Your task to perform on an android device: toggle translation in the chrome app Image 0: 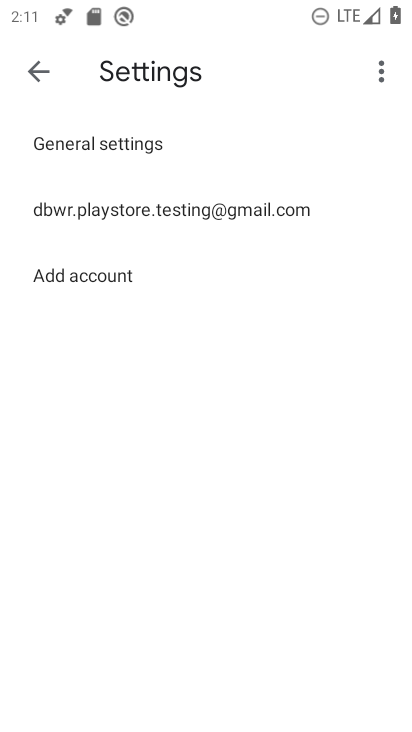
Step 0: press home button
Your task to perform on an android device: toggle translation in the chrome app Image 1: 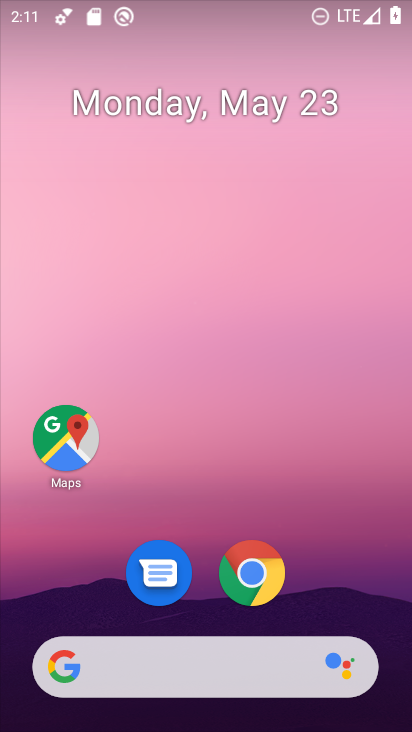
Step 1: click (259, 573)
Your task to perform on an android device: toggle translation in the chrome app Image 2: 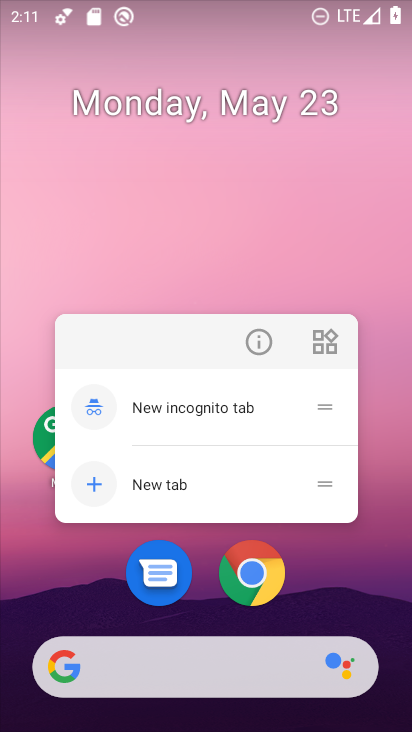
Step 2: click (252, 577)
Your task to perform on an android device: toggle translation in the chrome app Image 3: 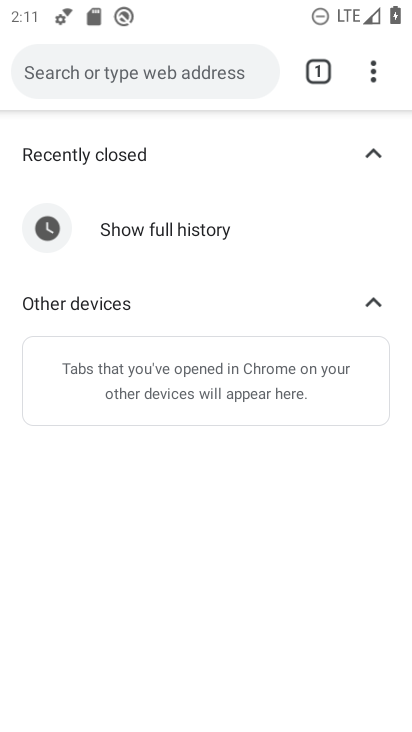
Step 3: drag from (362, 57) to (148, 604)
Your task to perform on an android device: toggle translation in the chrome app Image 4: 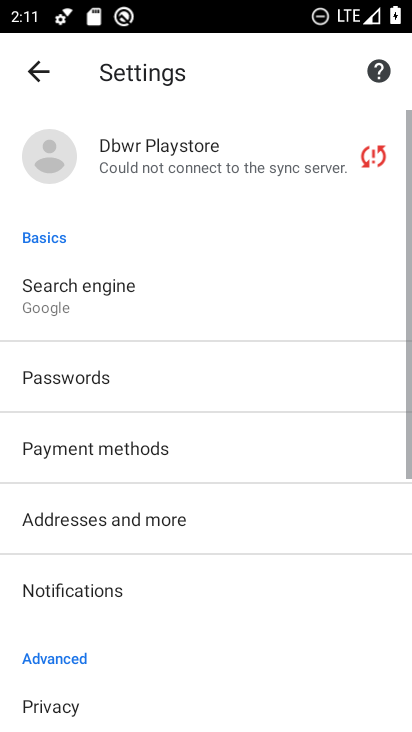
Step 4: click (137, 595)
Your task to perform on an android device: toggle translation in the chrome app Image 5: 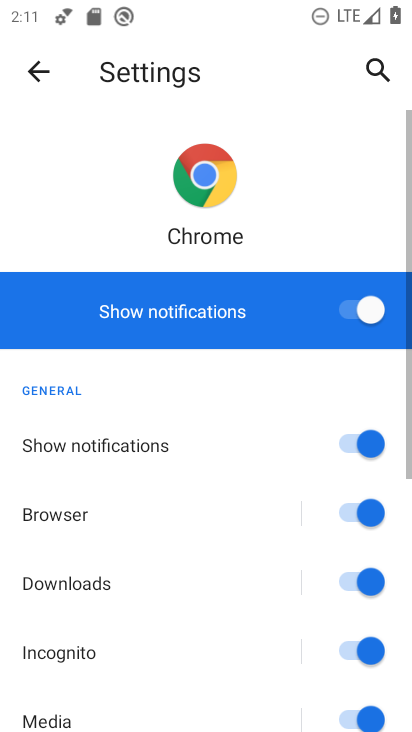
Step 5: click (24, 56)
Your task to perform on an android device: toggle translation in the chrome app Image 6: 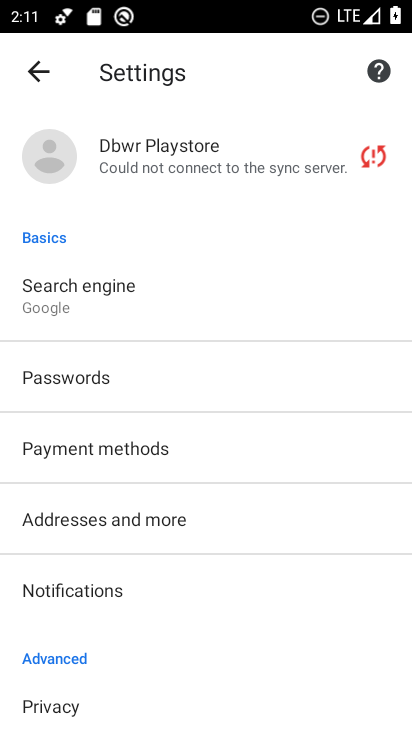
Step 6: drag from (231, 605) to (234, 112)
Your task to perform on an android device: toggle translation in the chrome app Image 7: 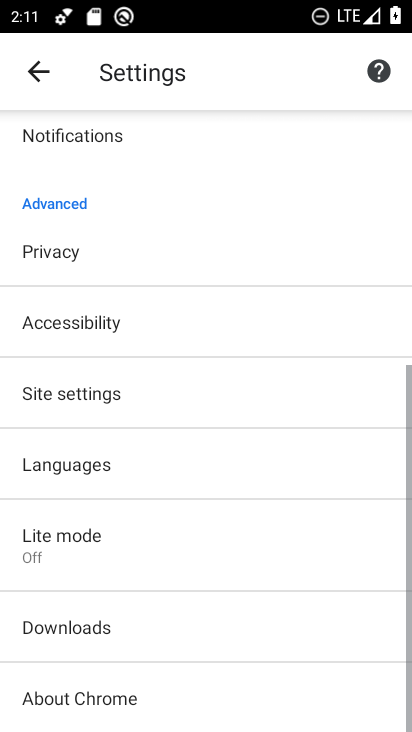
Step 7: drag from (222, 644) to (230, 160)
Your task to perform on an android device: toggle translation in the chrome app Image 8: 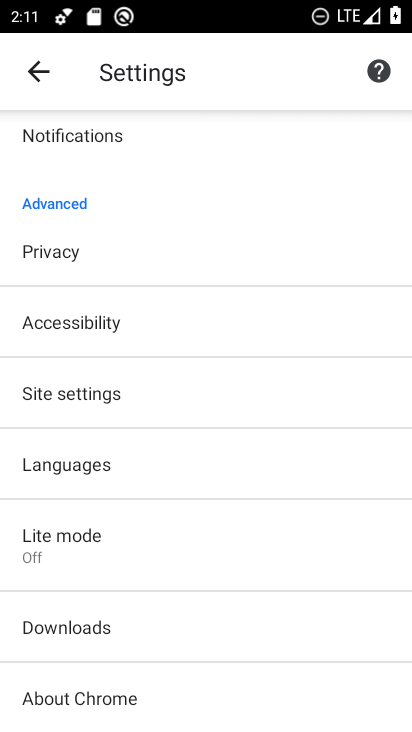
Step 8: click (135, 463)
Your task to perform on an android device: toggle translation in the chrome app Image 9: 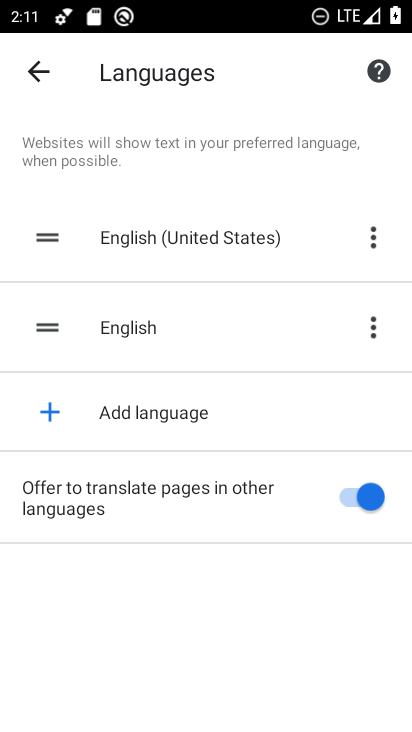
Step 9: click (341, 496)
Your task to perform on an android device: toggle translation in the chrome app Image 10: 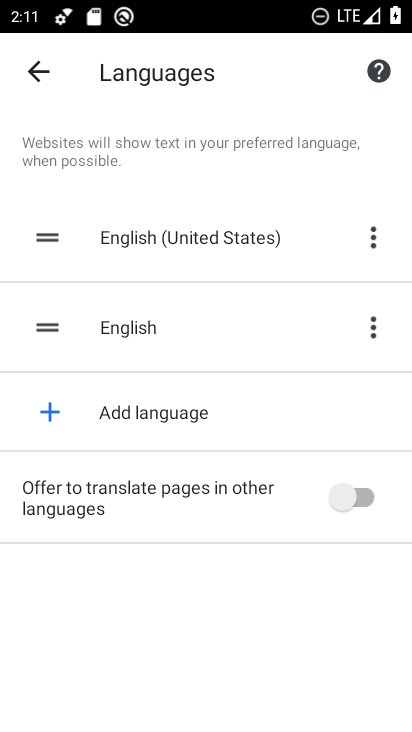
Step 10: task complete